Your task to perform on an android device: clear history in the chrome app Image 0: 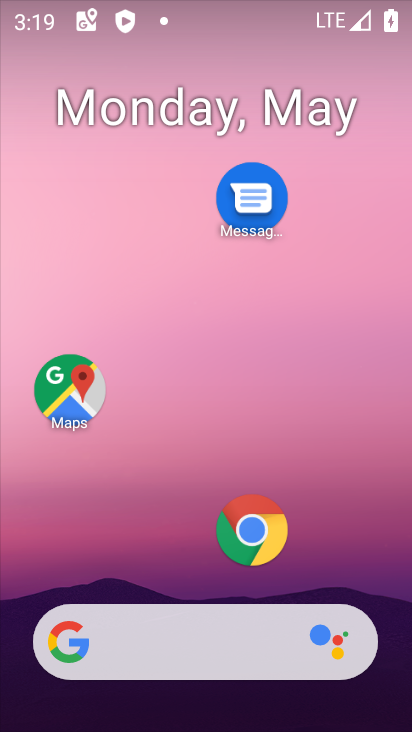
Step 0: click (265, 515)
Your task to perform on an android device: clear history in the chrome app Image 1: 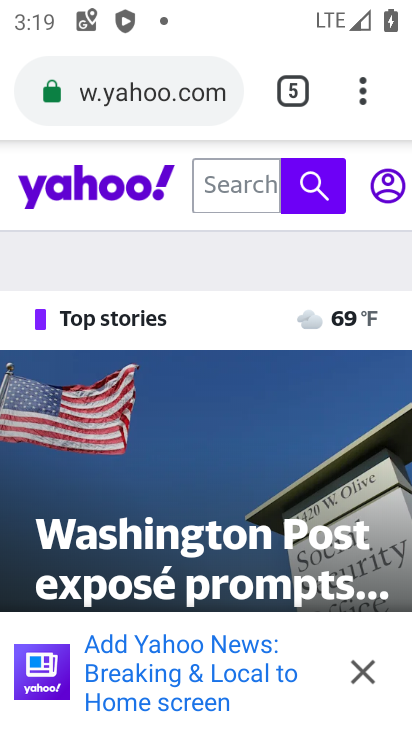
Step 1: drag from (356, 85) to (112, 522)
Your task to perform on an android device: clear history in the chrome app Image 2: 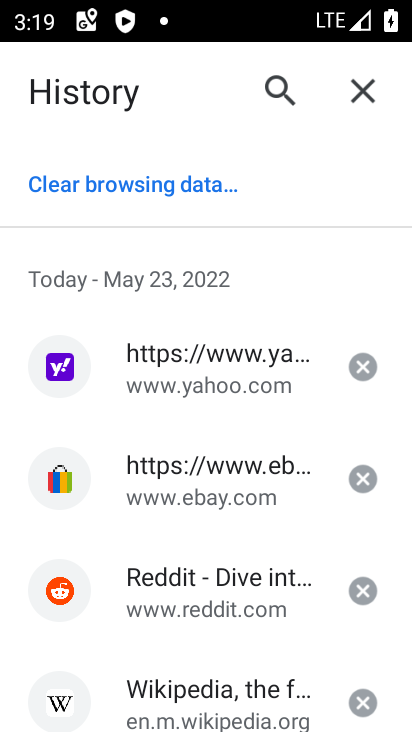
Step 2: click (136, 187)
Your task to perform on an android device: clear history in the chrome app Image 3: 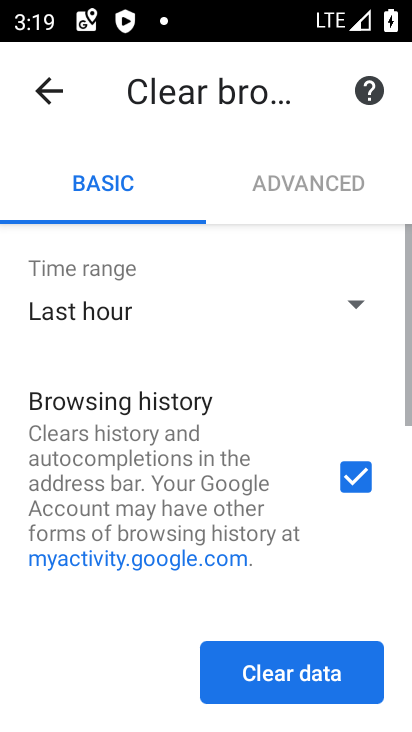
Step 3: click (254, 665)
Your task to perform on an android device: clear history in the chrome app Image 4: 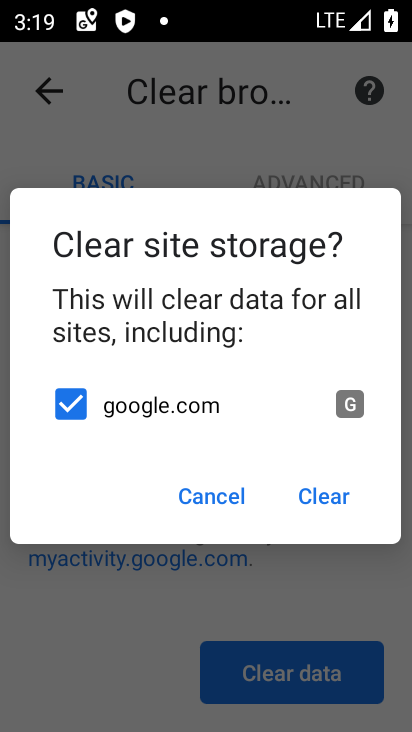
Step 4: click (303, 500)
Your task to perform on an android device: clear history in the chrome app Image 5: 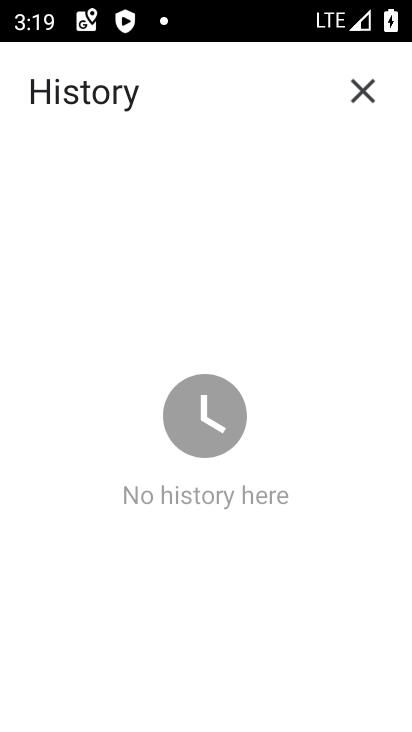
Step 5: task complete